Your task to perform on an android device: Open the map Image 0: 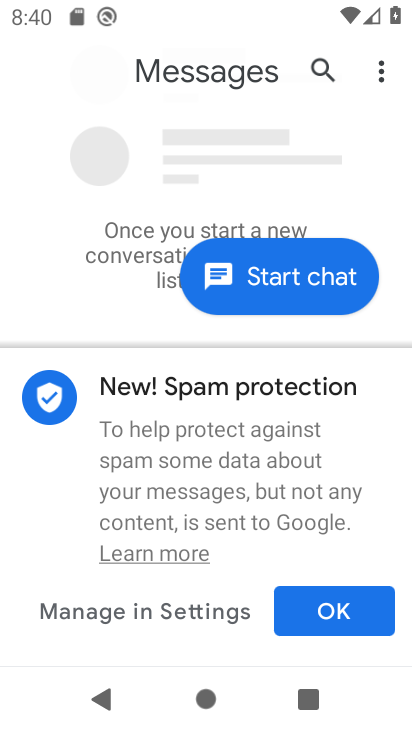
Step 0: press home button
Your task to perform on an android device: Open the map Image 1: 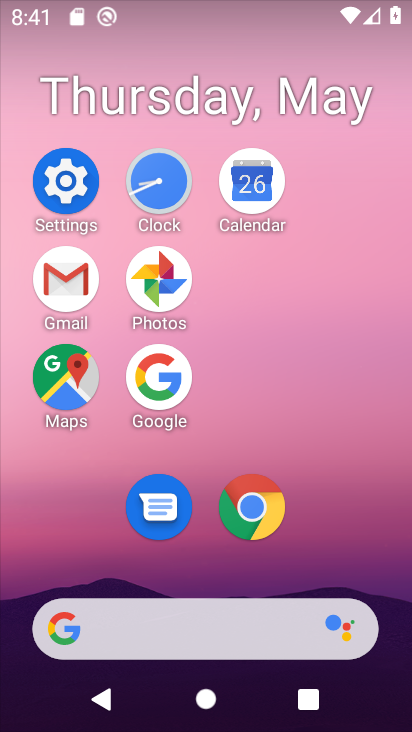
Step 1: click (76, 369)
Your task to perform on an android device: Open the map Image 2: 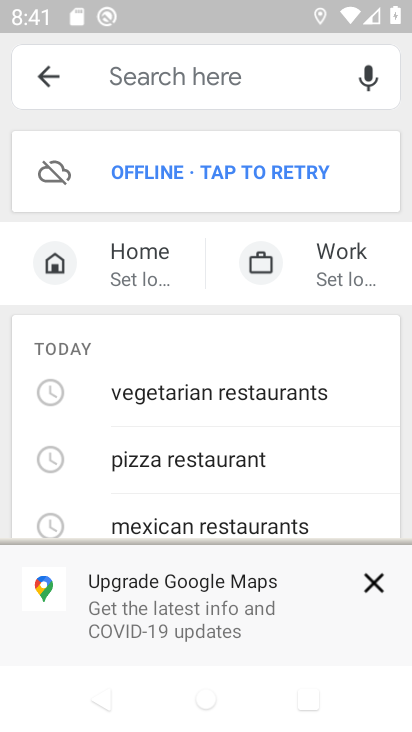
Step 2: task complete